Your task to perform on an android device: delete browsing data in the chrome app Image 0: 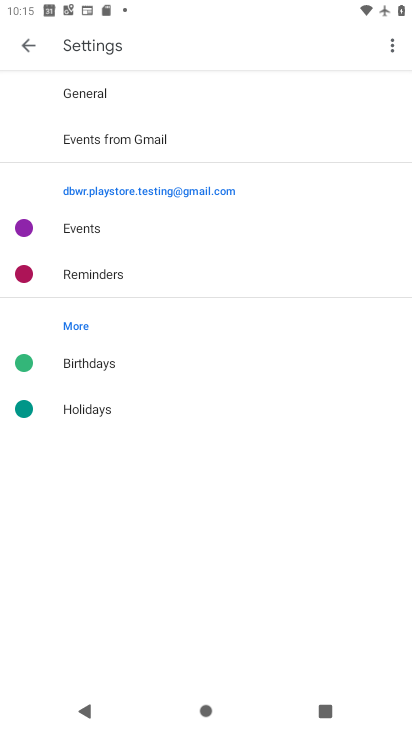
Step 0: press home button
Your task to perform on an android device: delete browsing data in the chrome app Image 1: 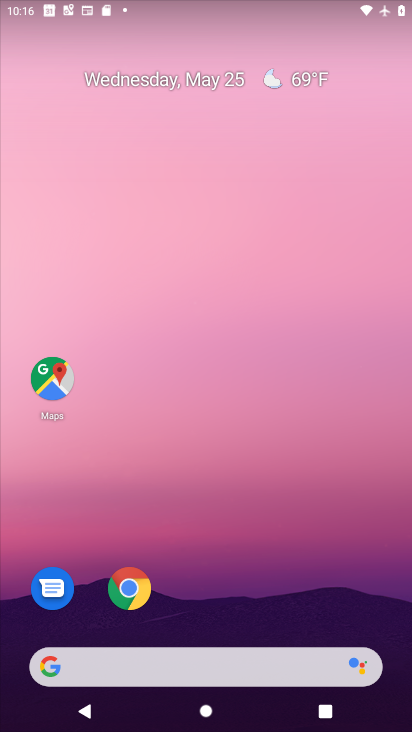
Step 1: drag from (378, 611) to (367, 250)
Your task to perform on an android device: delete browsing data in the chrome app Image 2: 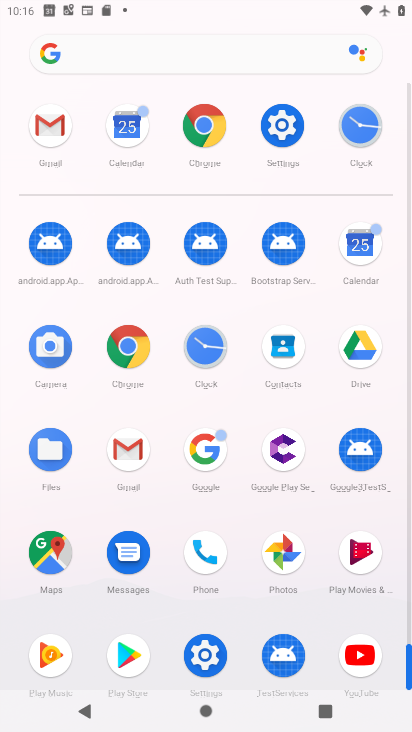
Step 2: click (130, 349)
Your task to perform on an android device: delete browsing data in the chrome app Image 3: 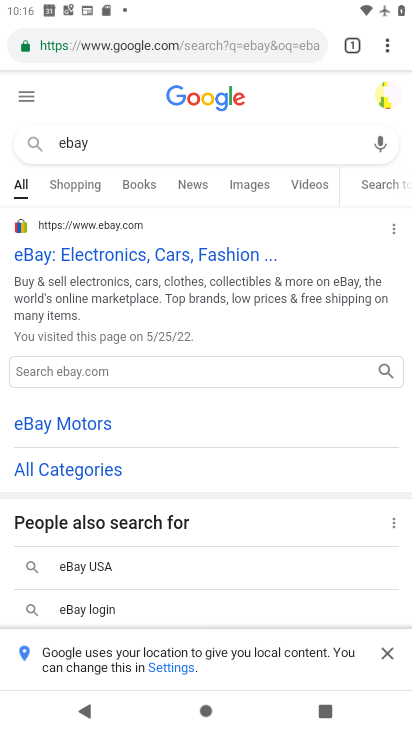
Step 3: click (388, 51)
Your task to perform on an android device: delete browsing data in the chrome app Image 4: 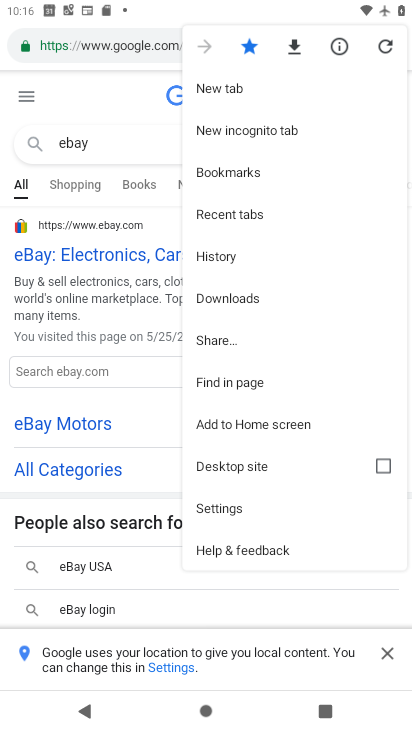
Step 4: click (242, 513)
Your task to perform on an android device: delete browsing data in the chrome app Image 5: 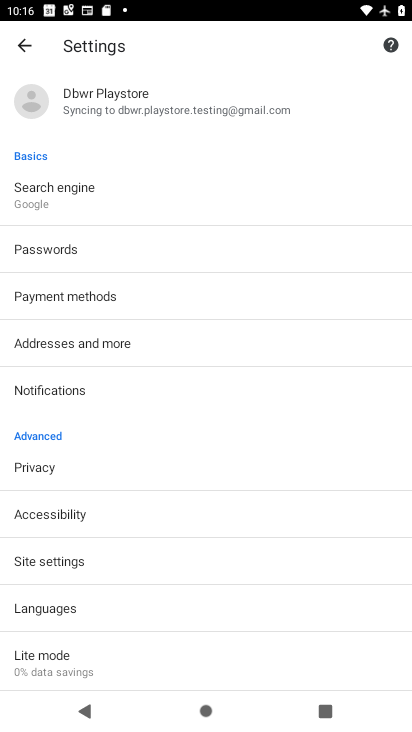
Step 5: click (245, 469)
Your task to perform on an android device: delete browsing data in the chrome app Image 6: 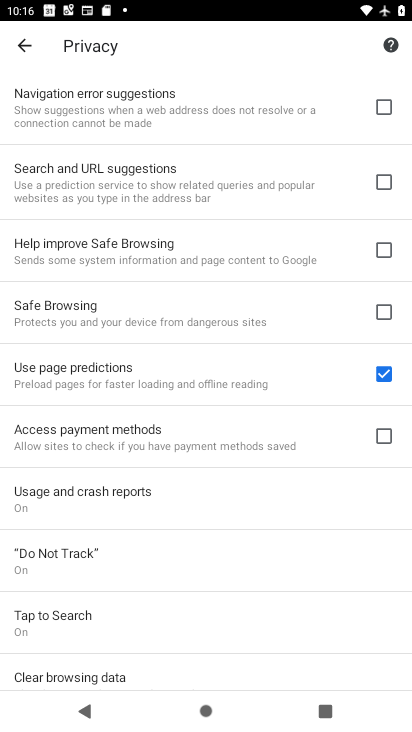
Step 6: click (174, 672)
Your task to perform on an android device: delete browsing data in the chrome app Image 7: 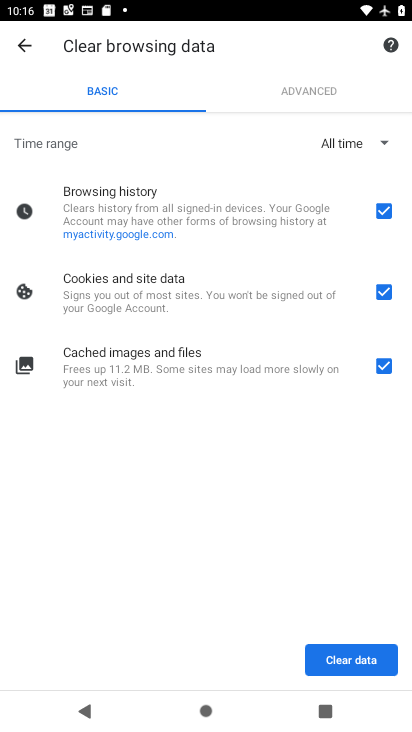
Step 7: click (342, 659)
Your task to perform on an android device: delete browsing data in the chrome app Image 8: 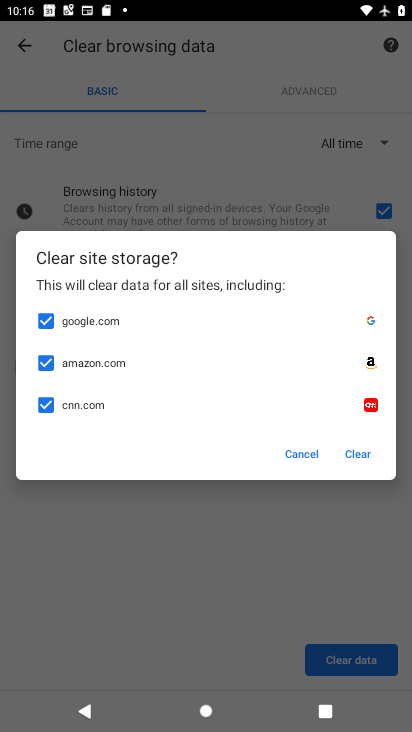
Step 8: click (369, 457)
Your task to perform on an android device: delete browsing data in the chrome app Image 9: 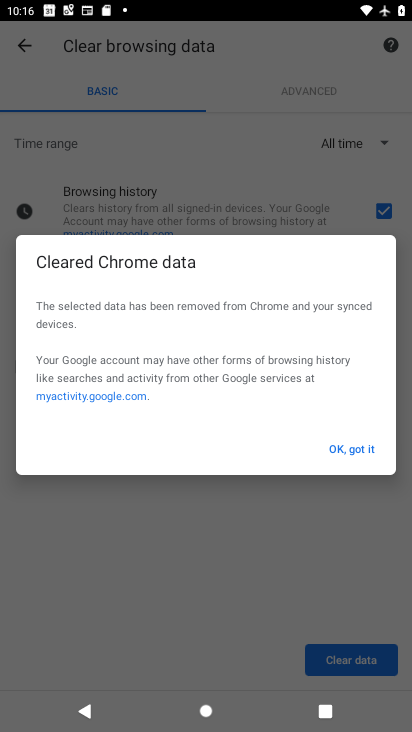
Step 9: task complete